Your task to perform on an android device: What's the weather? Image 0: 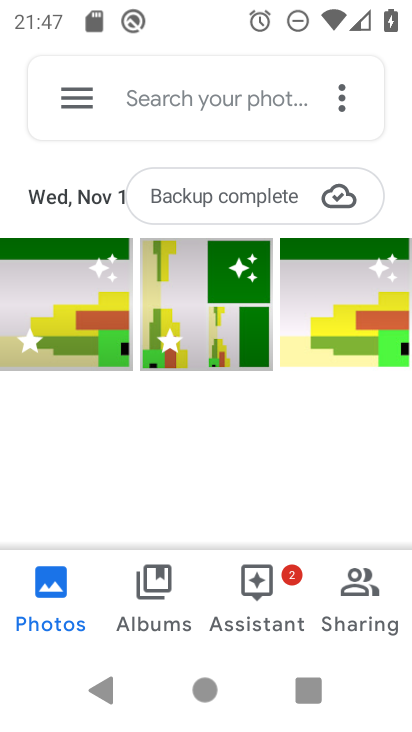
Step 0: press home button
Your task to perform on an android device: What's the weather? Image 1: 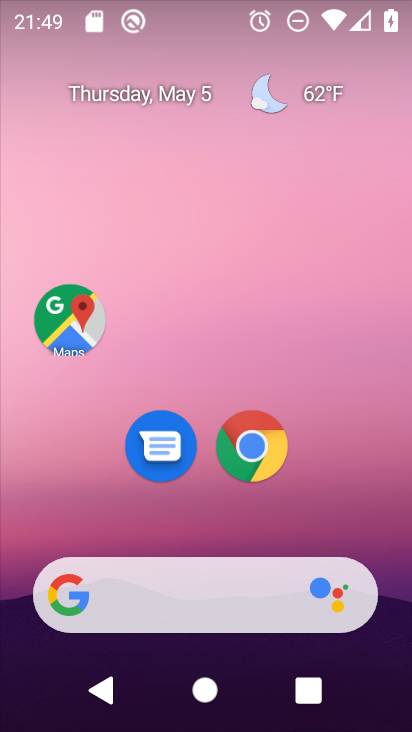
Step 1: drag from (305, 620) to (278, 250)
Your task to perform on an android device: What's the weather? Image 2: 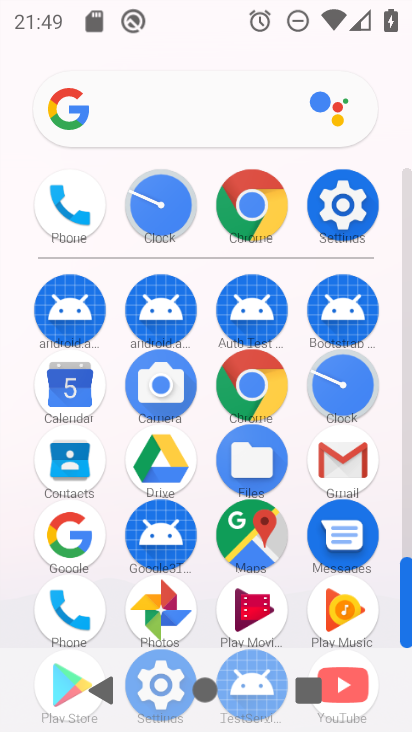
Step 2: click (169, 139)
Your task to perform on an android device: What's the weather? Image 3: 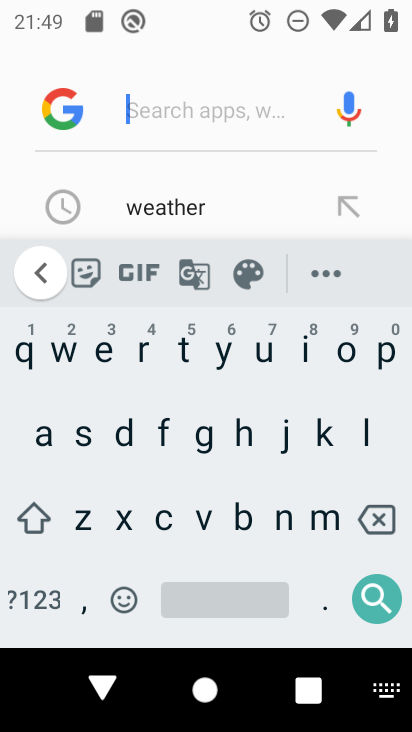
Step 3: click (167, 207)
Your task to perform on an android device: What's the weather? Image 4: 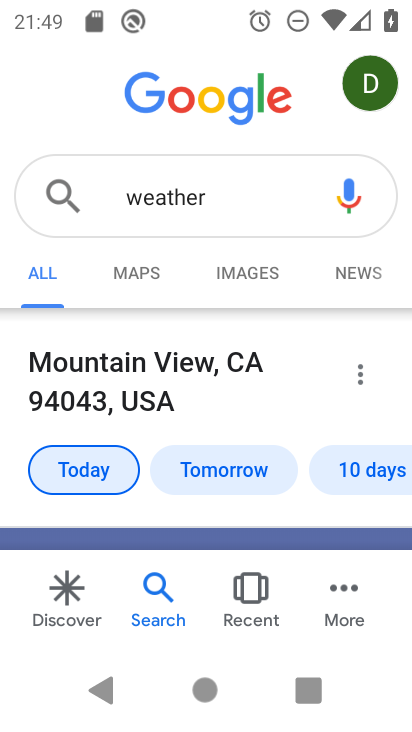
Step 4: task complete